Your task to perform on an android device: Open CNN.com Image 0: 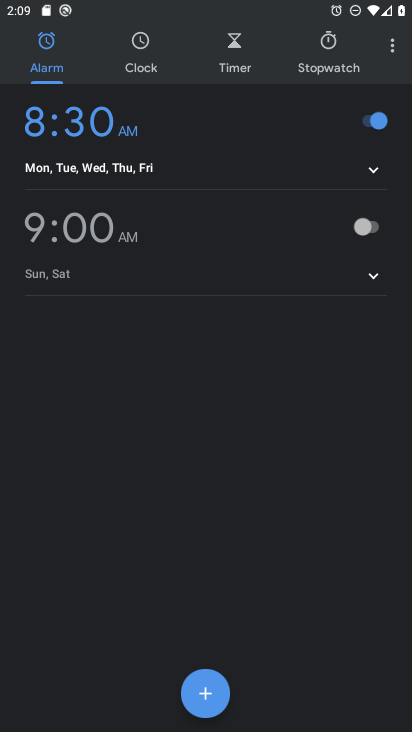
Step 0: press home button
Your task to perform on an android device: Open CNN.com Image 1: 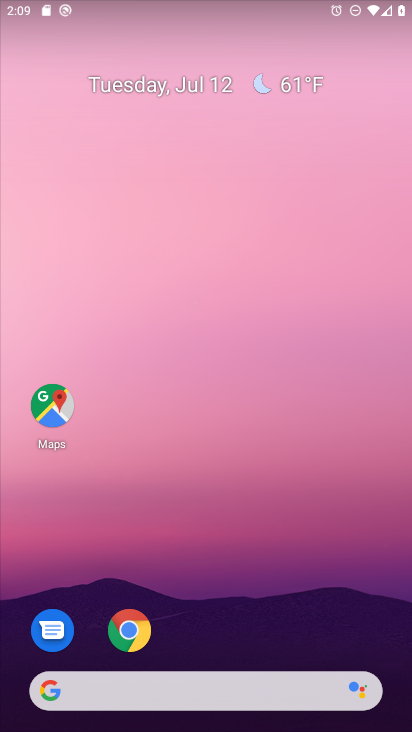
Step 1: click (138, 635)
Your task to perform on an android device: Open CNN.com Image 2: 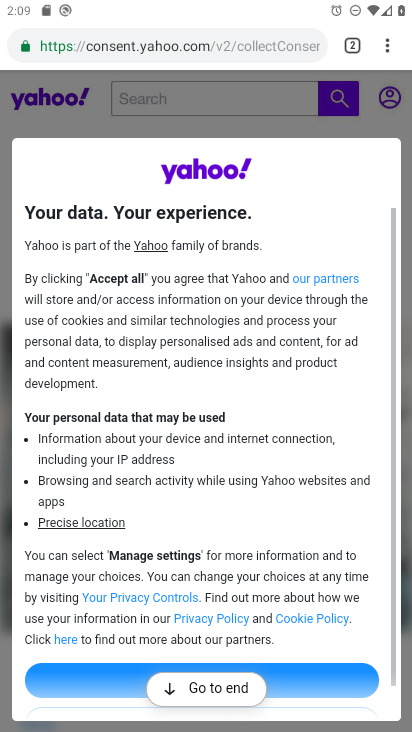
Step 2: click (350, 45)
Your task to perform on an android device: Open CNN.com Image 3: 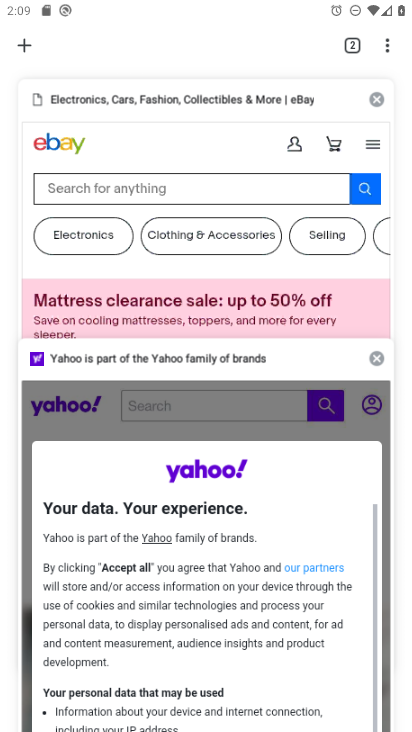
Step 3: click (28, 47)
Your task to perform on an android device: Open CNN.com Image 4: 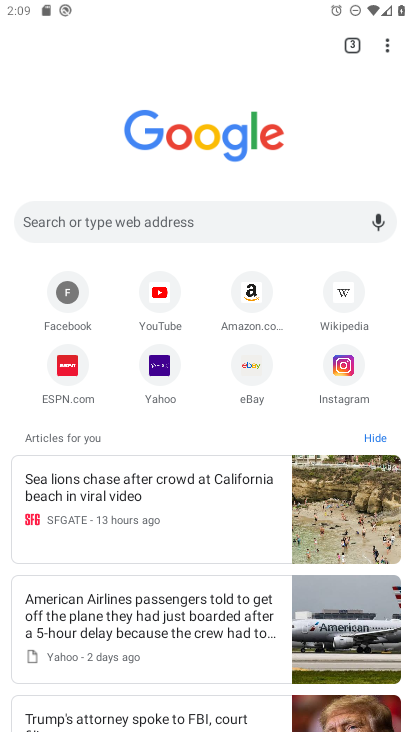
Step 4: click (146, 225)
Your task to perform on an android device: Open CNN.com Image 5: 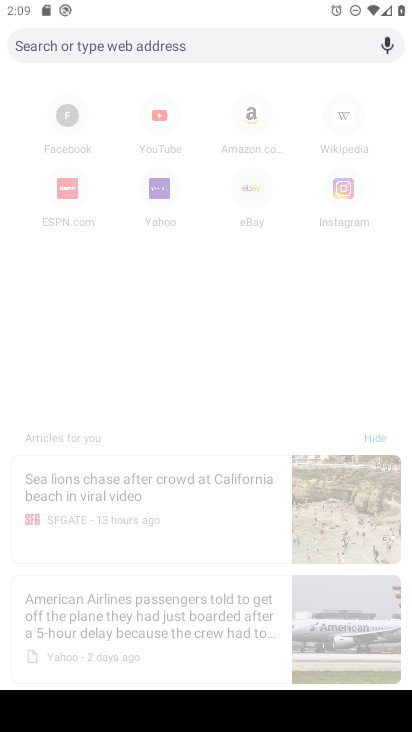
Step 5: type "CNN.com"
Your task to perform on an android device: Open CNN.com Image 6: 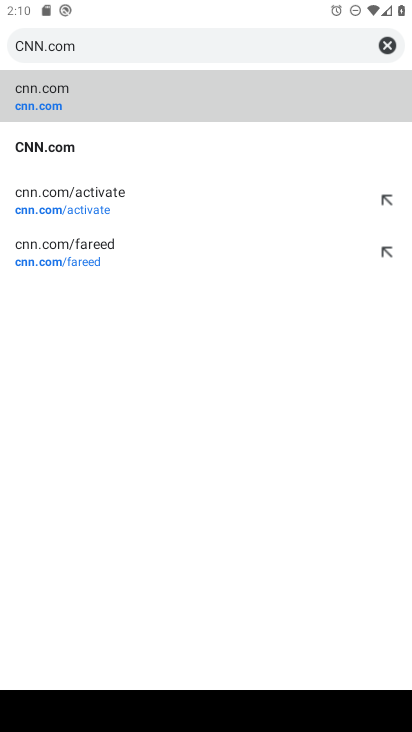
Step 6: click (82, 116)
Your task to perform on an android device: Open CNN.com Image 7: 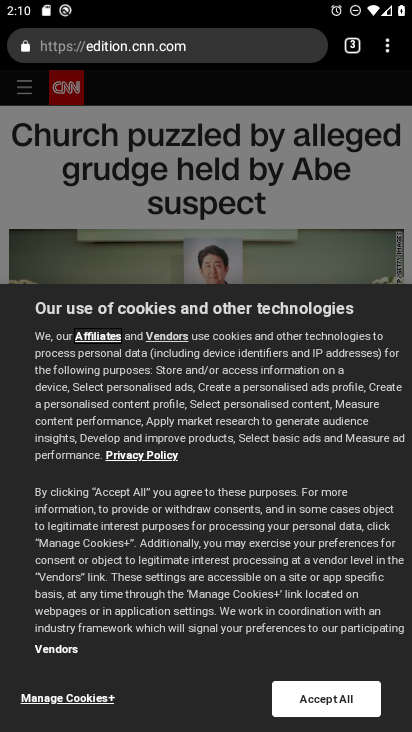
Step 7: task complete